Your task to perform on an android device: turn on javascript in the chrome app Image 0: 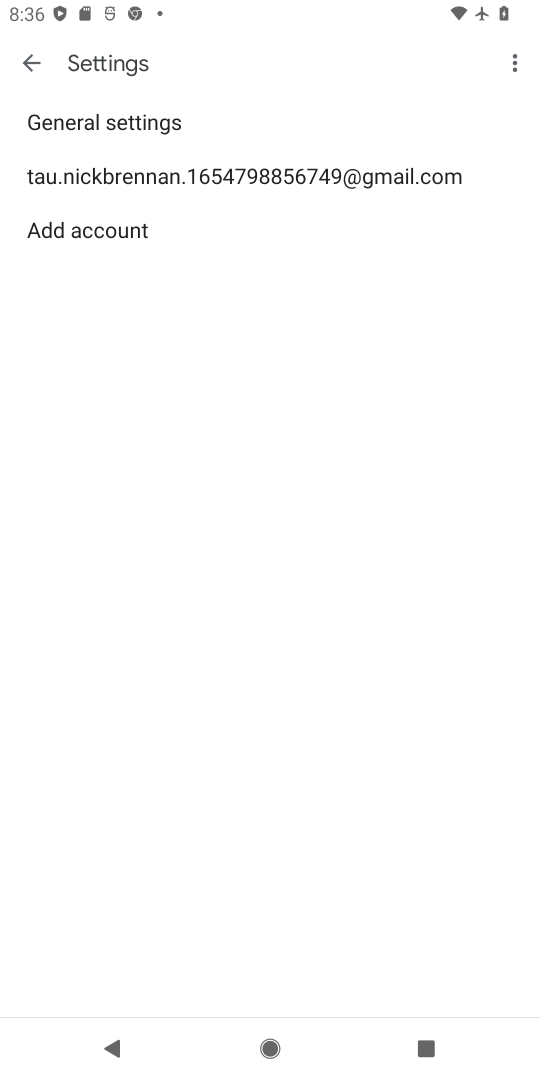
Step 0: press home button
Your task to perform on an android device: turn on javascript in the chrome app Image 1: 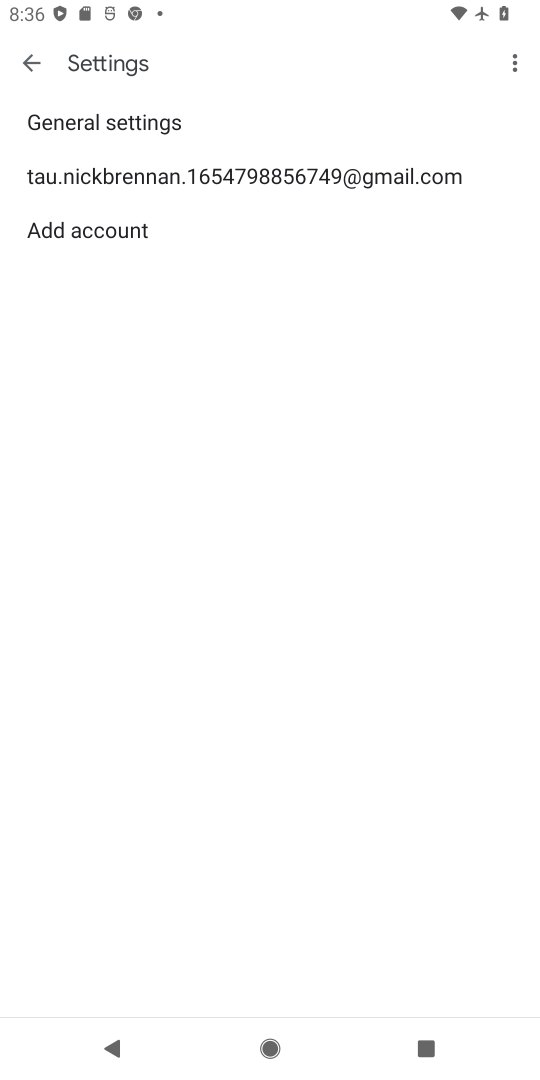
Step 1: press home button
Your task to perform on an android device: turn on javascript in the chrome app Image 2: 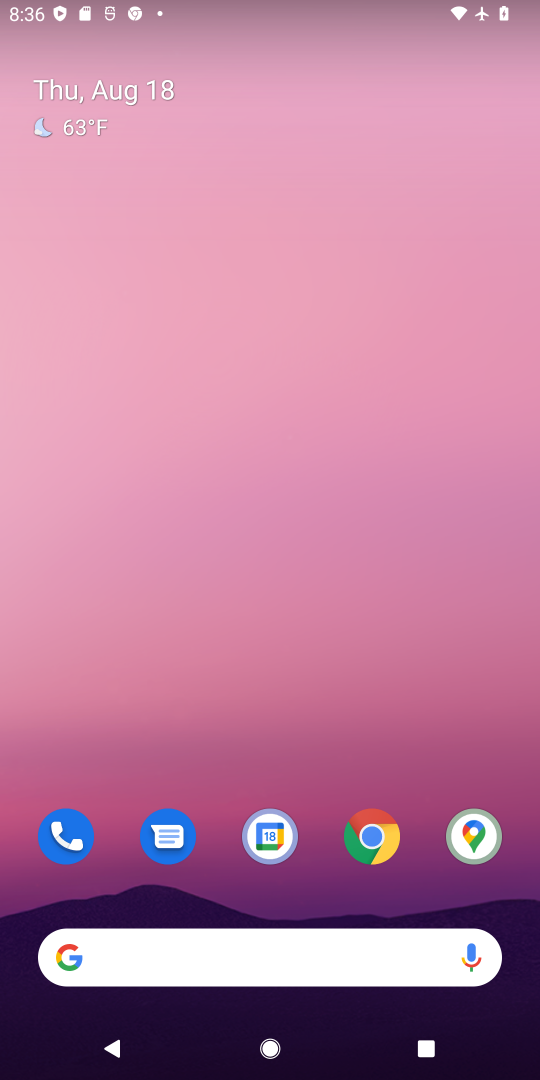
Step 2: drag from (255, 730) to (217, 22)
Your task to perform on an android device: turn on javascript in the chrome app Image 3: 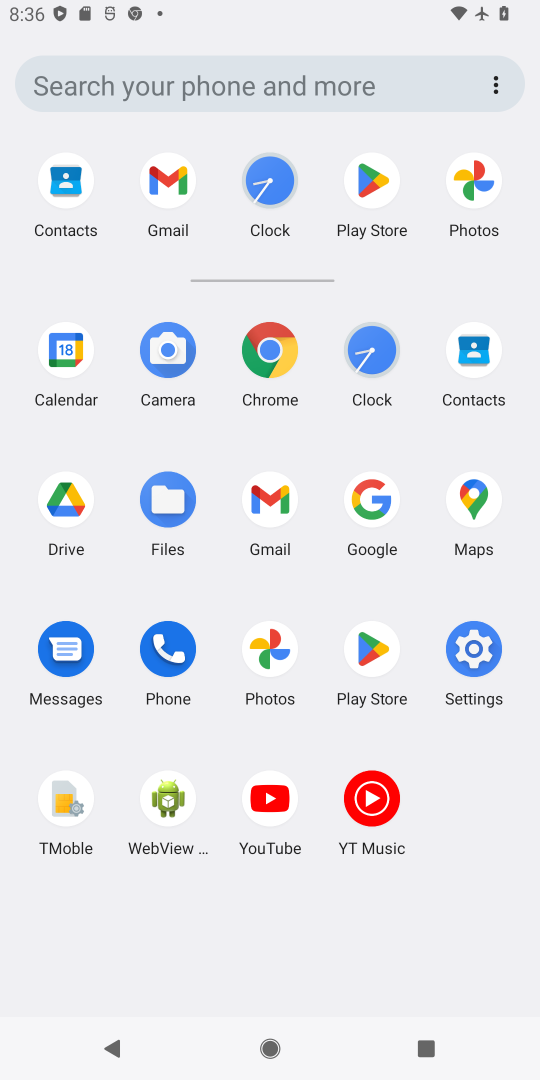
Step 3: click (274, 357)
Your task to perform on an android device: turn on javascript in the chrome app Image 4: 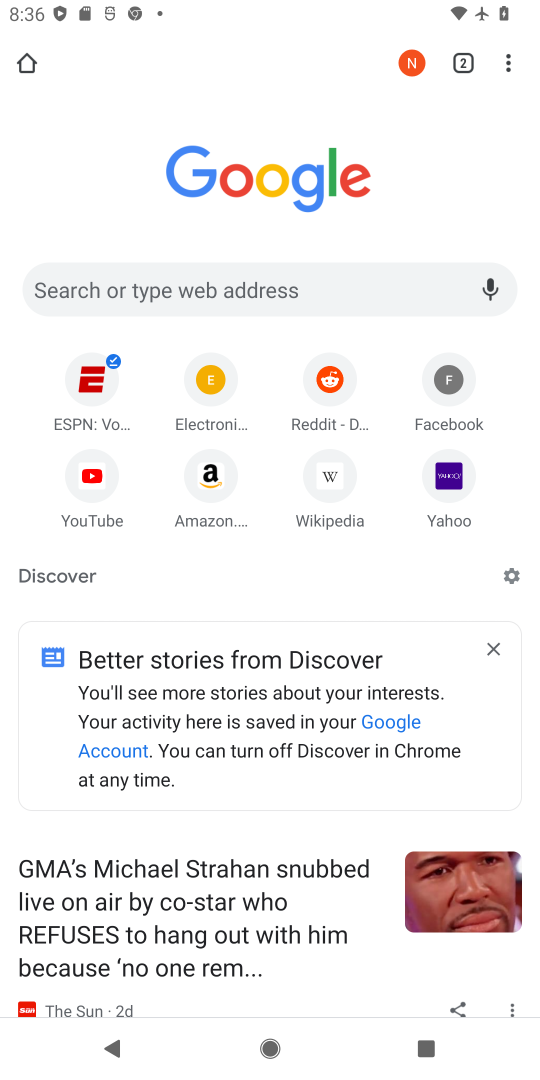
Step 4: drag from (512, 63) to (402, 615)
Your task to perform on an android device: turn on javascript in the chrome app Image 5: 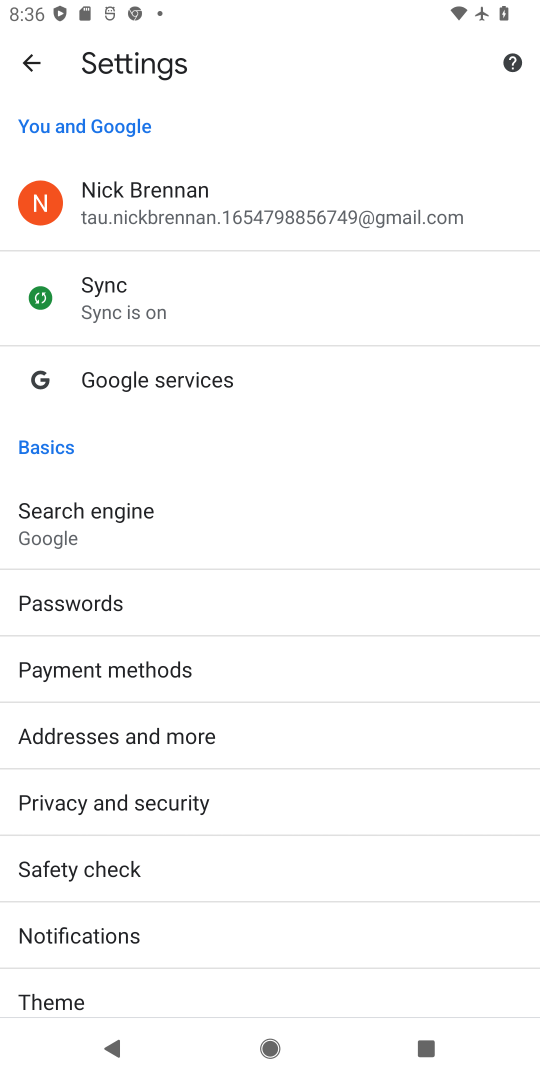
Step 5: drag from (389, 920) to (378, 176)
Your task to perform on an android device: turn on javascript in the chrome app Image 6: 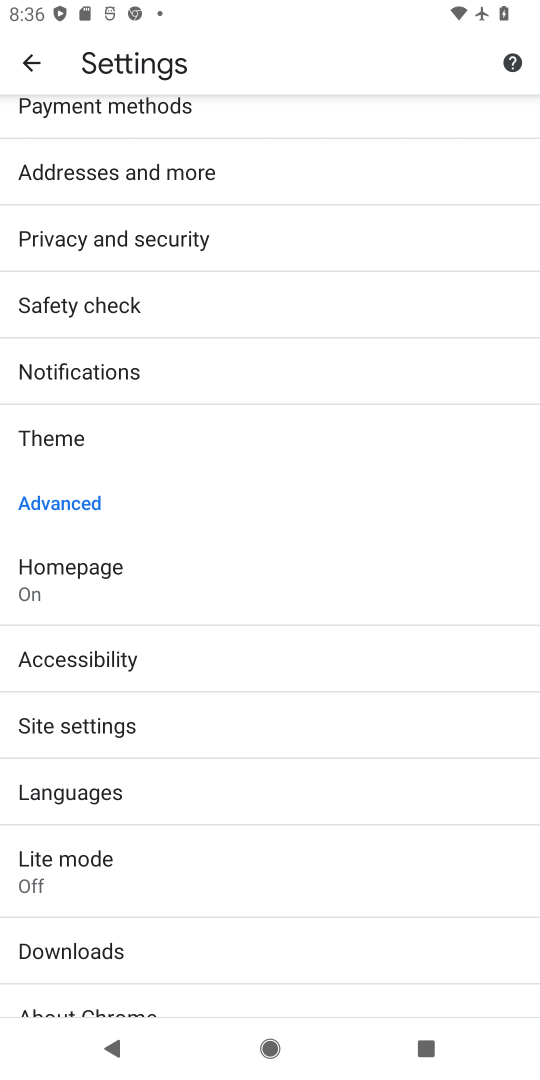
Step 6: click (79, 743)
Your task to perform on an android device: turn on javascript in the chrome app Image 7: 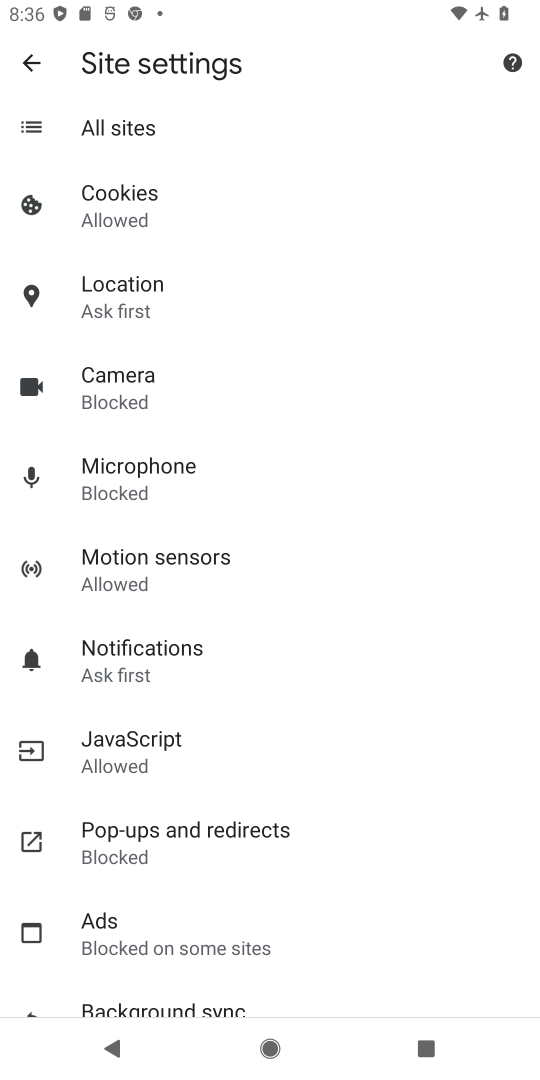
Step 7: click (122, 743)
Your task to perform on an android device: turn on javascript in the chrome app Image 8: 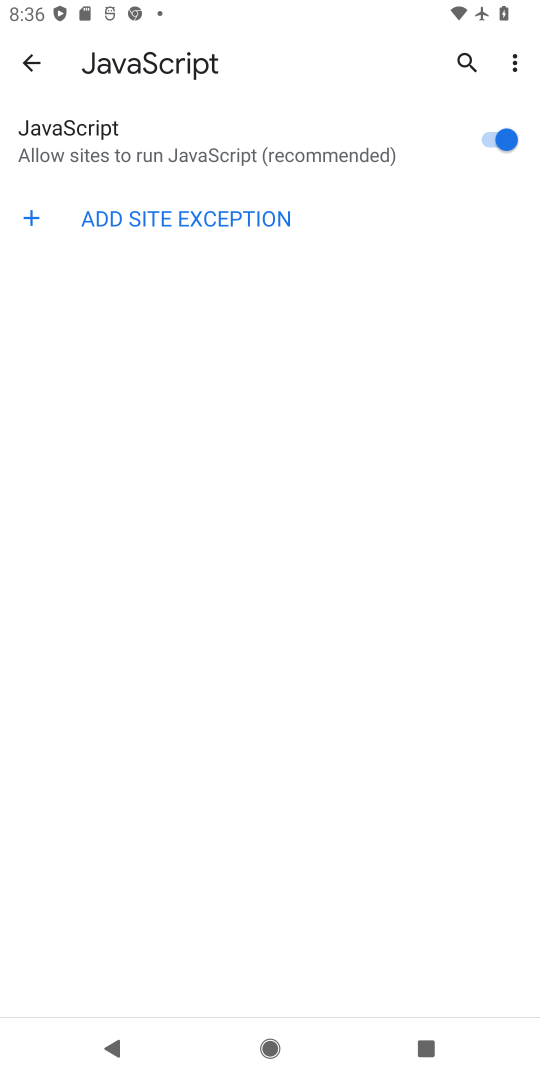
Step 8: task complete